Your task to perform on an android device: empty trash in the gmail app Image 0: 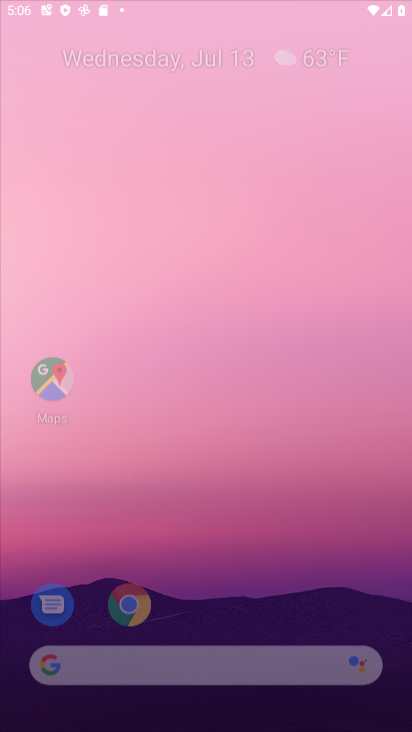
Step 0: press home button
Your task to perform on an android device: empty trash in the gmail app Image 1: 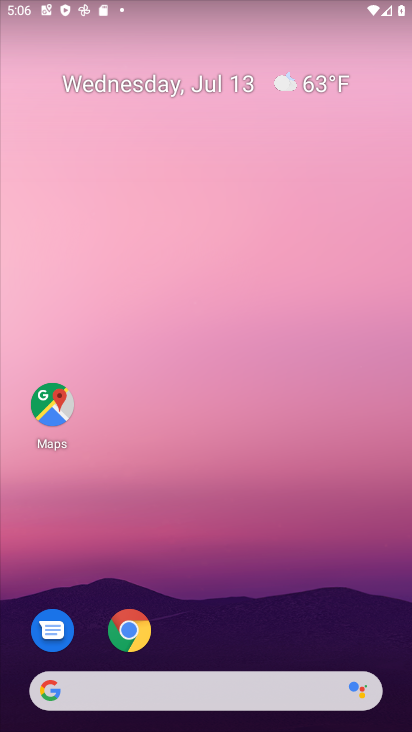
Step 1: drag from (212, 629) to (220, 13)
Your task to perform on an android device: empty trash in the gmail app Image 2: 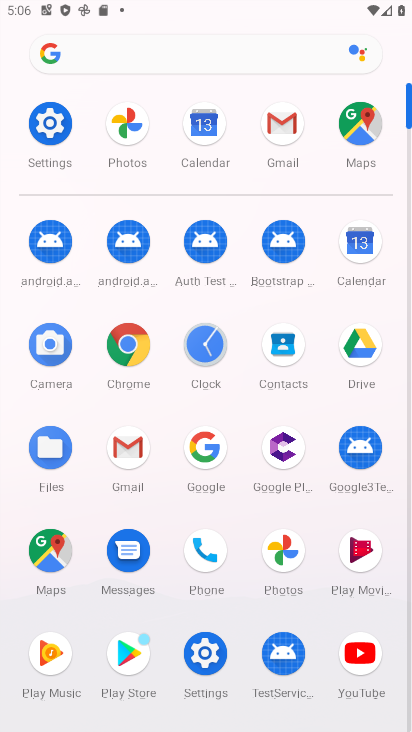
Step 2: click (293, 128)
Your task to perform on an android device: empty trash in the gmail app Image 3: 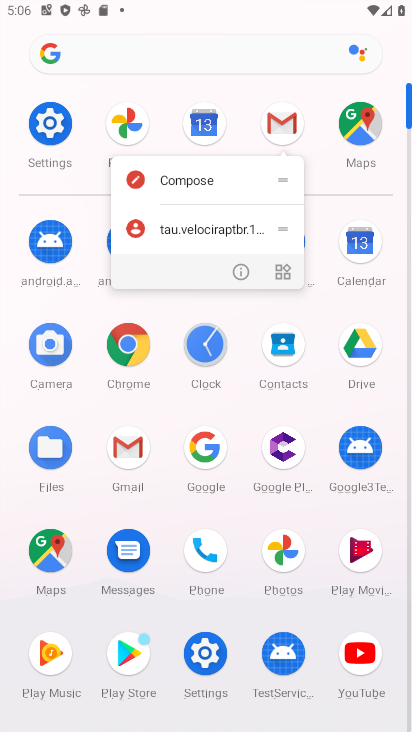
Step 3: click (293, 128)
Your task to perform on an android device: empty trash in the gmail app Image 4: 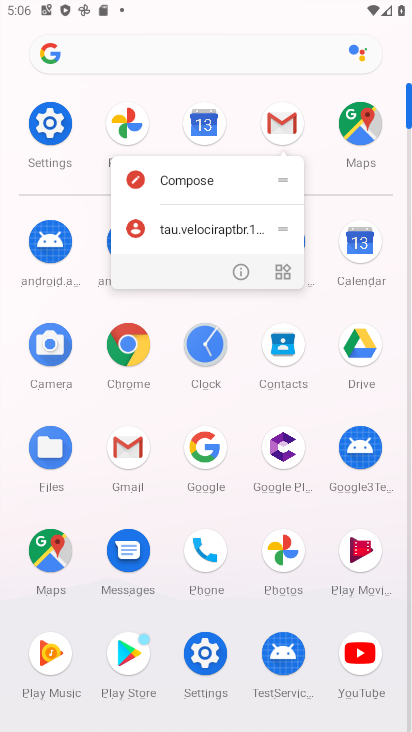
Step 4: click (288, 129)
Your task to perform on an android device: empty trash in the gmail app Image 5: 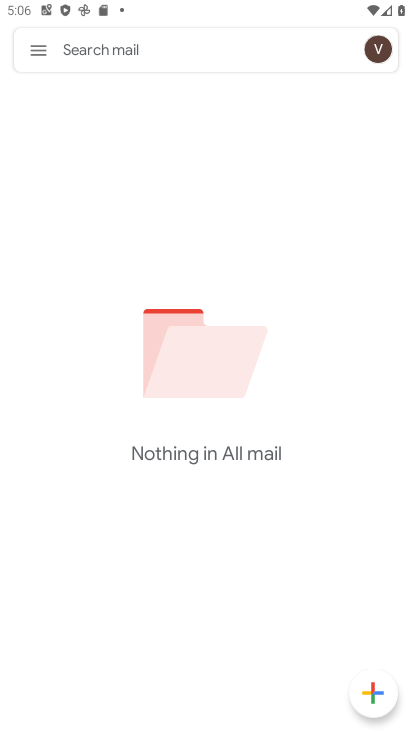
Step 5: click (39, 45)
Your task to perform on an android device: empty trash in the gmail app Image 6: 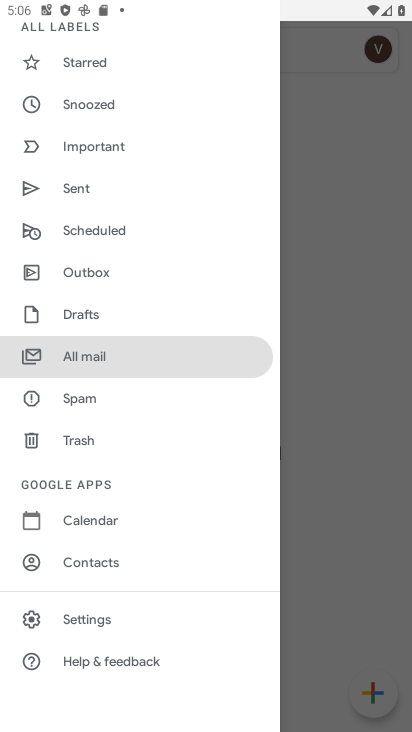
Step 6: click (32, 446)
Your task to perform on an android device: empty trash in the gmail app Image 7: 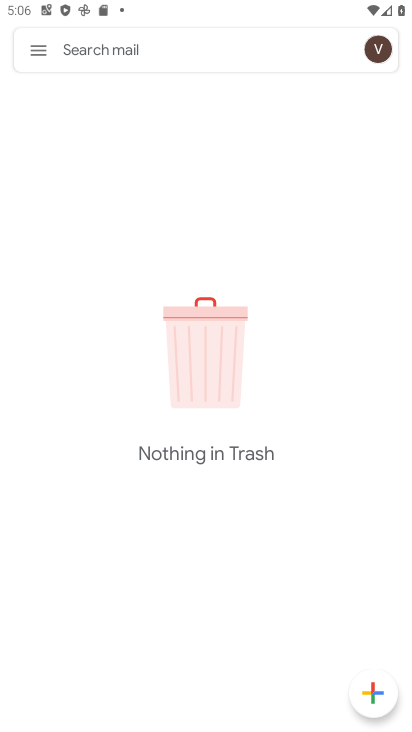
Step 7: task complete